Your task to perform on an android device: change your default location settings in chrome Image 0: 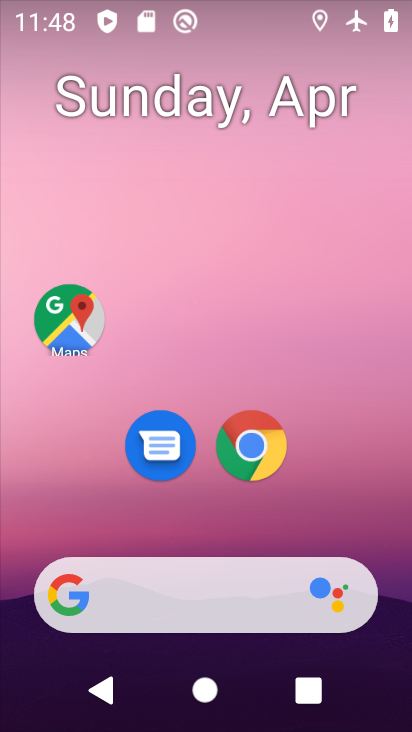
Step 0: drag from (342, 526) to (311, 364)
Your task to perform on an android device: change your default location settings in chrome Image 1: 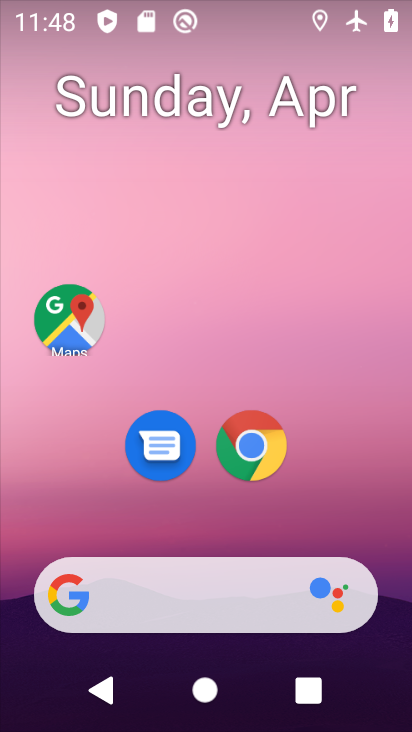
Step 1: click (263, 452)
Your task to perform on an android device: change your default location settings in chrome Image 2: 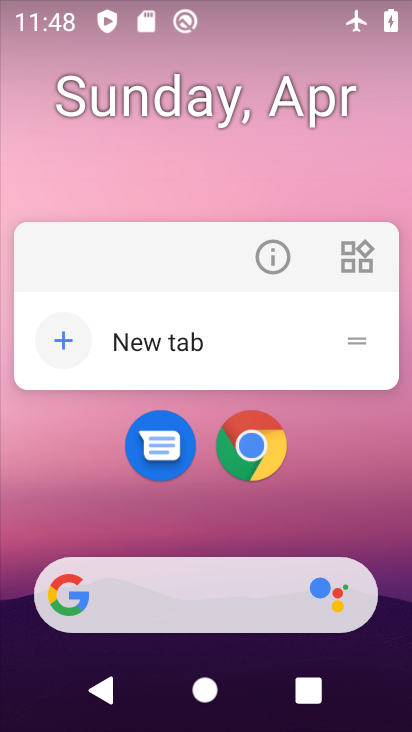
Step 2: click (249, 448)
Your task to perform on an android device: change your default location settings in chrome Image 3: 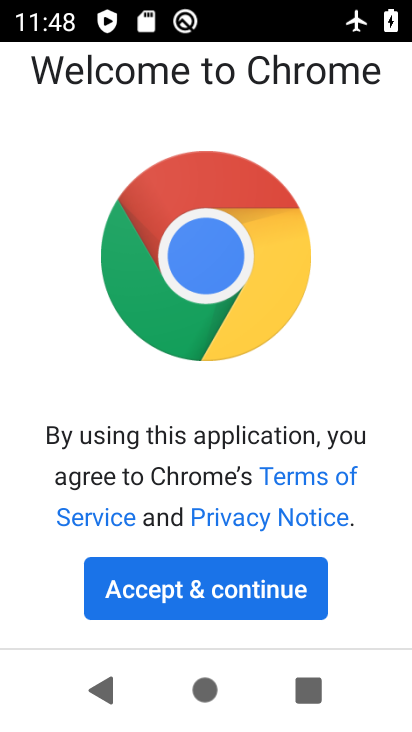
Step 3: click (208, 592)
Your task to perform on an android device: change your default location settings in chrome Image 4: 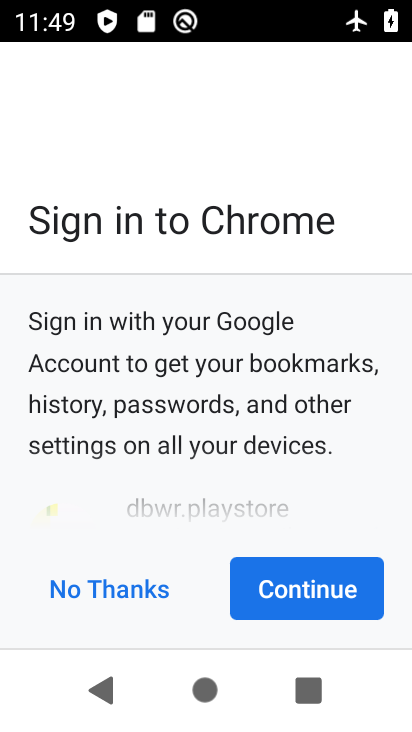
Step 4: click (290, 594)
Your task to perform on an android device: change your default location settings in chrome Image 5: 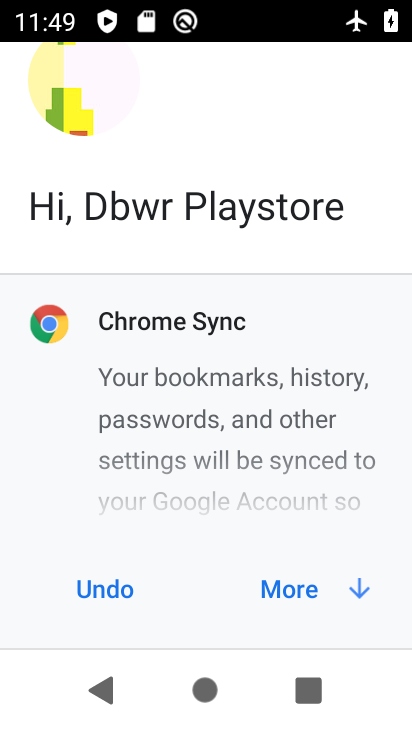
Step 5: click (291, 589)
Your task to perform on an android device: change your default location settings in chrome Image 6: 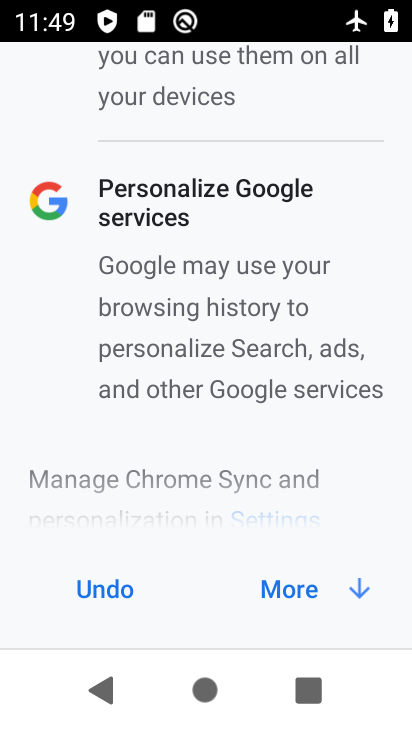
Step 6: click (291, 589)
Your task to perform on an android device: change your default location settings in chrome Image 7: 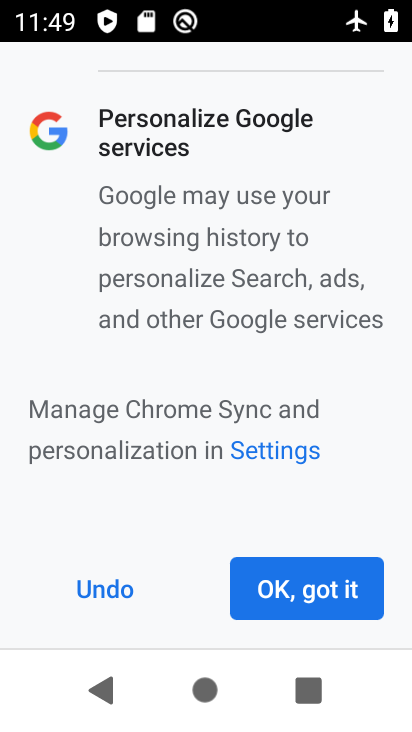
Step 7: click (291, 589)
Your task to perform on an android device: change your default location settings in chrome Image 8: 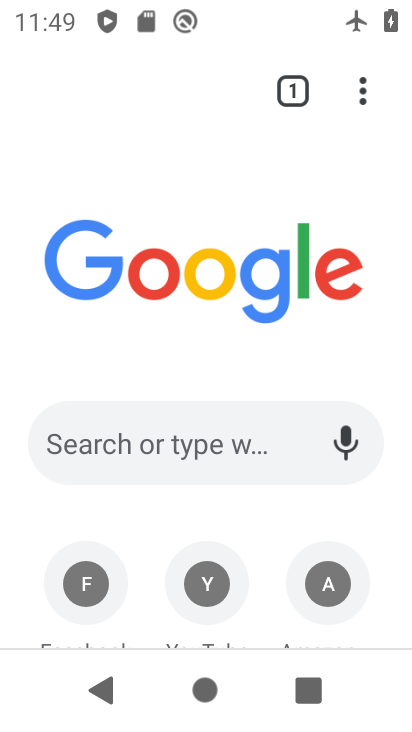
Step 8: click (373, 96)
Your task to perform on an android device: change your default location settings in chrome Image 9: 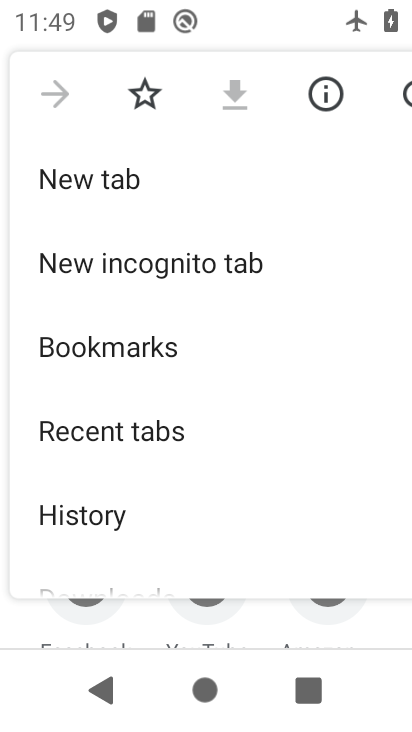
Step 9: drag from (182, 439) to (129, 187)
Your task to perform on an android device: change your default location settings in chrome Image 10: 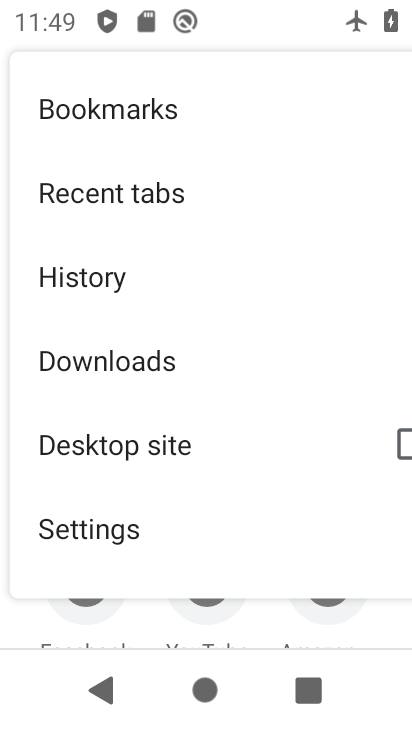
Step 10: drag from (159, 490) to (171, 320)
Your task to perform on an android device: change your default location settings in chrome Image 11: 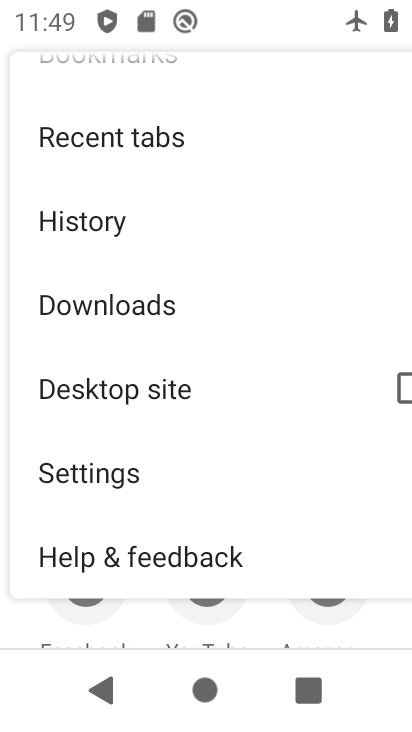
Step 11: drag from (258, 504) to (224, 216)
Your task to perform on an android device: change your default location settings in chrome Image 12: 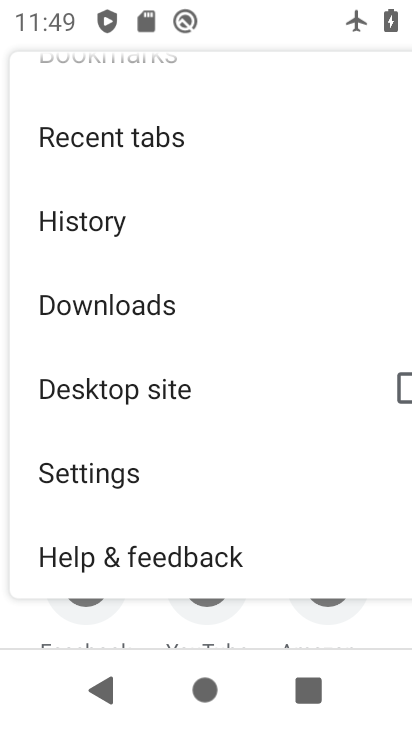
Step 12: drag from (220, 503) to (212, 287)
Your task to perform on an android device: change your default location settings in chrome Image 13: 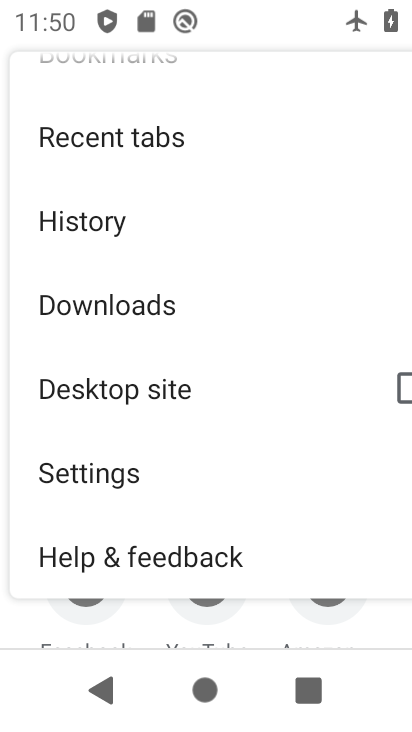
Step 13: click (110, 465)
Your task to perform on an android device: change your default location settings in chrome Image 14: 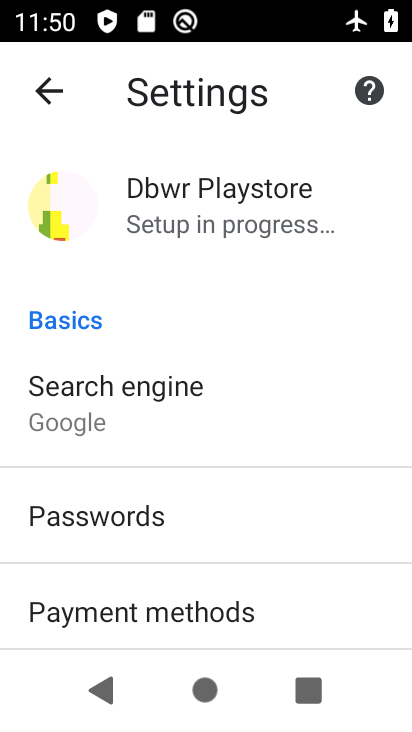
Step 14: drag from (121, 548) to (130, 263)
Your task to perform on an android device: change your default location settings in chrome Image 15: 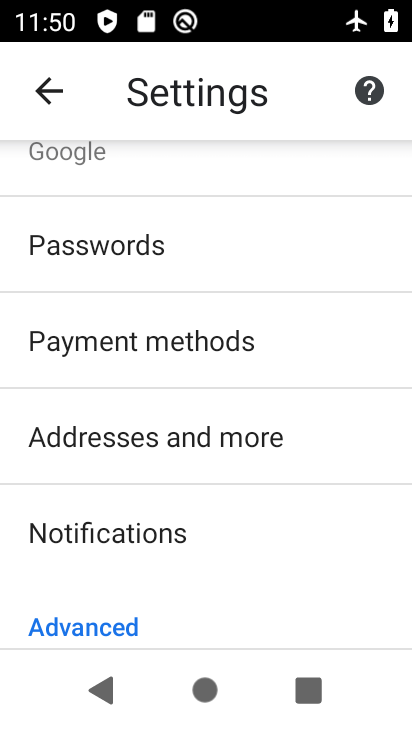
Step 15: drag from (160, 583) to (215, 100)
Your task to perform on an android device: change your default location settings in chrome Image 16: 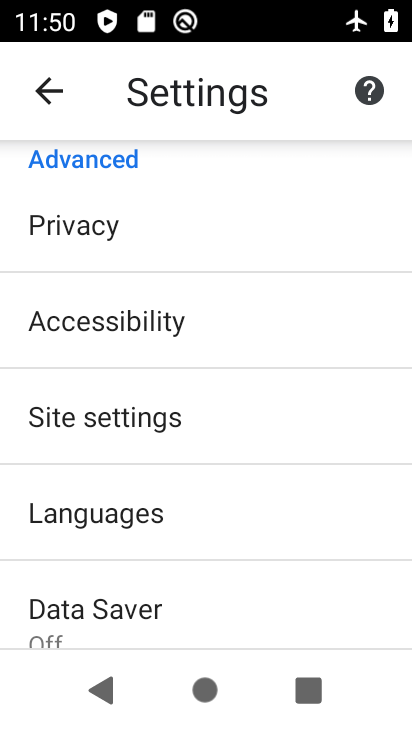
Step 16: click (143, 431)
Your task to perform on an android device: change your default location settings in chrome Image 17: 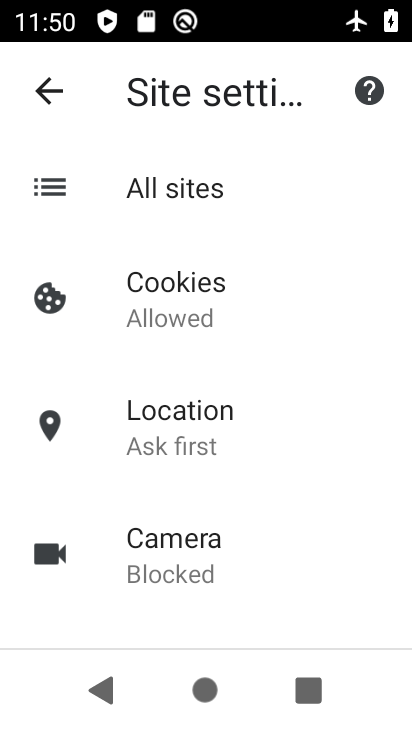
Step 17: drag from (178, 540) to (140, 303)
Your task to perform on an android device: change your default location settings in chrome Image 18: 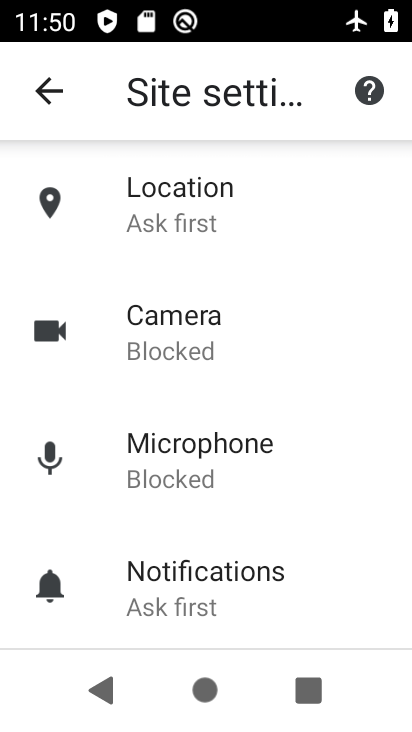
Step 18: drag from (211, 578) to (181, 261)
Your task to perform on an android device: change your default location settings in chrome Image 19: 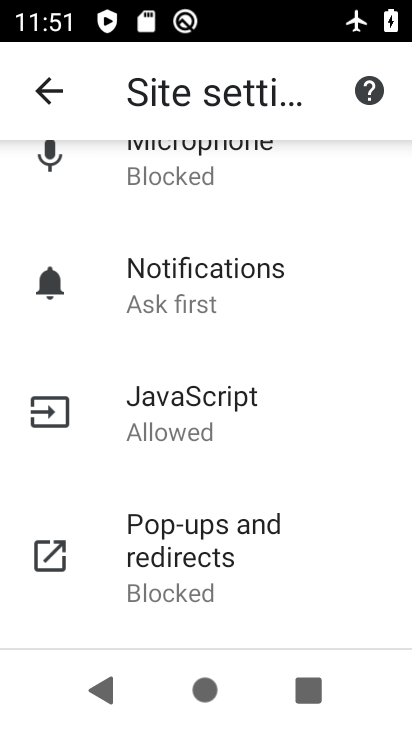
Step 19: drag from (218, 570) to (160, 701)
Your task to perform on an android device: change your default location settings in chrome Image 20: 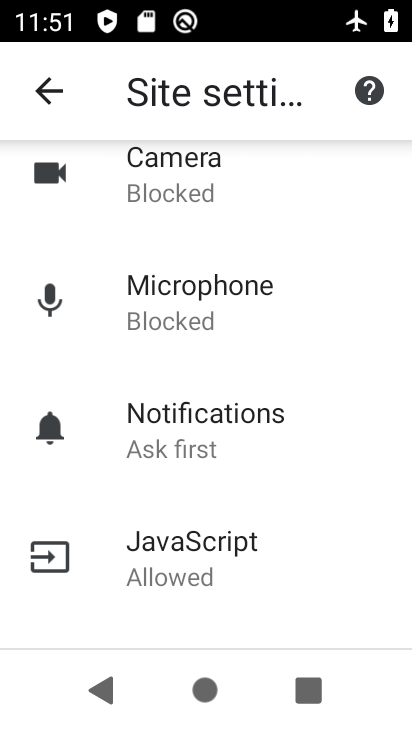
Step 20: drag from (189, 381) to (190, 653)
Your task to perform on an android device: change your default location settings in chrome Image 21: 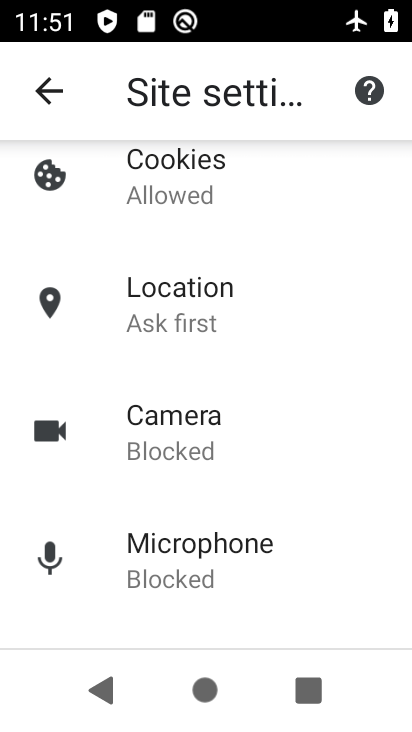
Step 21: click (169, 324)
Your task to perform on an android device: change your default location settings in chrome Image 22: 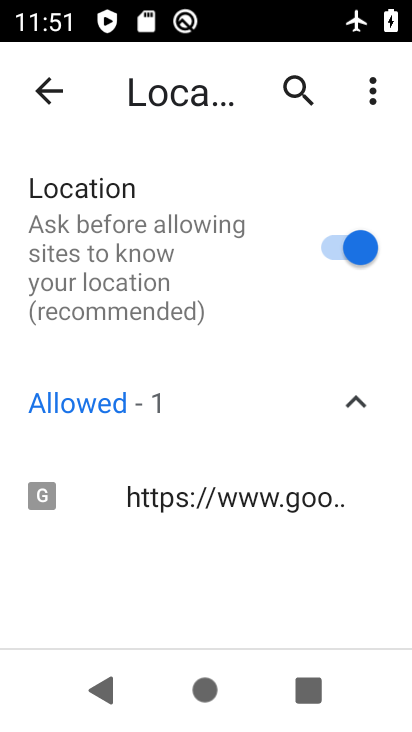
Step 22: click (350, 255)
Your task to perform on an android device: change your default location settings in chrome Image 23: 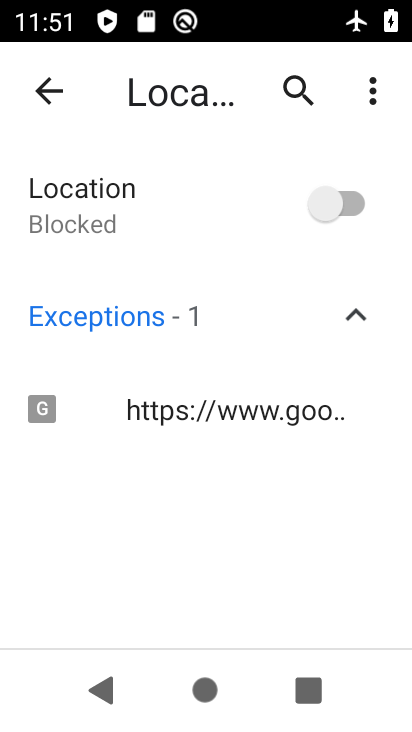
Step 23: task complete